Your task to perform on an android device: Open the Play Movies app and select the watchlist tab. Image 0: 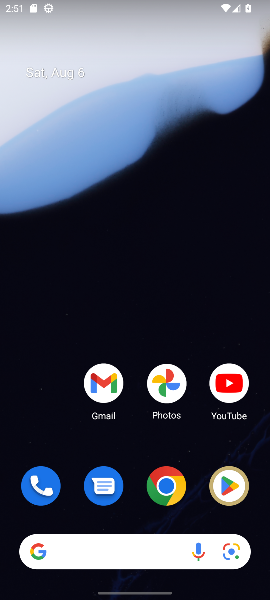
Step 0: press home button
Your task to perform on an android device: Open the Play Movies app and select the watchlist tab. Image 1: 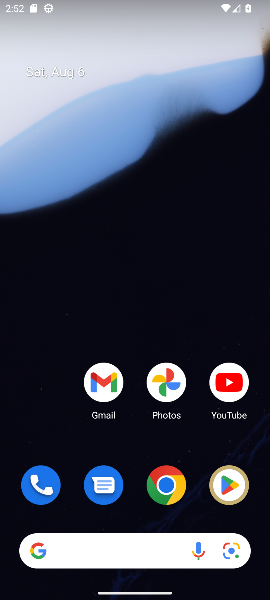
Step 1: drag from (134, 474) to (154, 26)
Your task to perform on an android device: Open the Play Movies app and select the watchlist tab. Image 2: 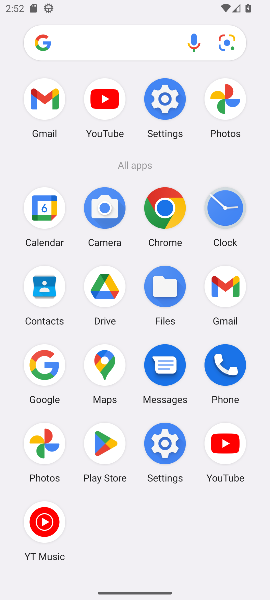
Step 2: click (99, 441)
Your task to perform on an android device: Open the Play Movies app and select the watchlist tab. Image 3: 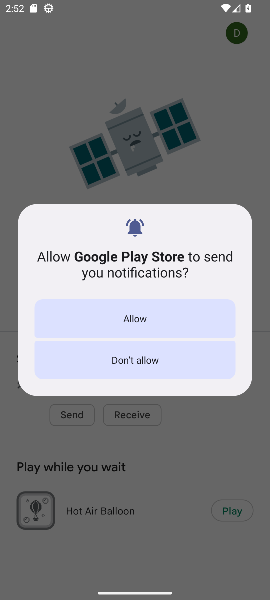
Step 3: click (126, 307)
Your task to perform on an android device: Open the Play Movies app and select the watchlist tab. Image 4: 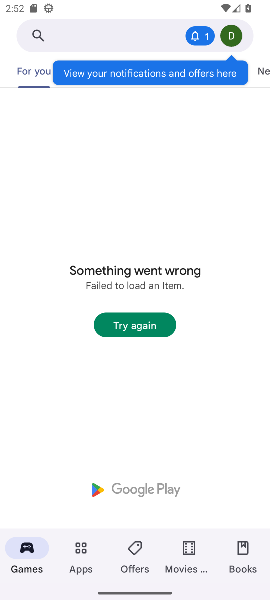
Step 4: click (133, 327)
Your task to perform on an android device: Open the Play Movies app and select the watchlist tab. Image 5: 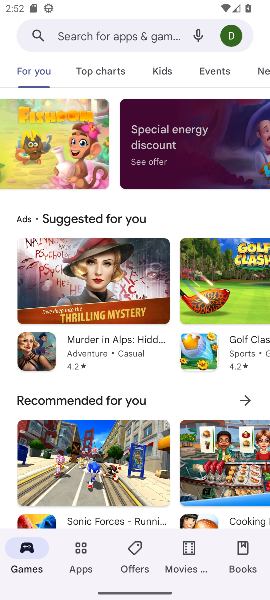
Step 5: click (84, 34)
Your task to perform on an android device: Open the Play Movies app and select the watchlist tab. Image 6: 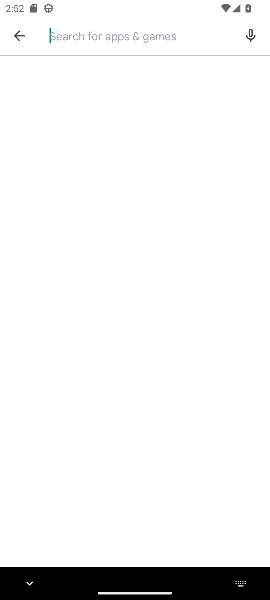
Step 6: type "play movies app"
Your task to perform on an android device: Open the Play Movies app and select the watchlist tab. Image 7: 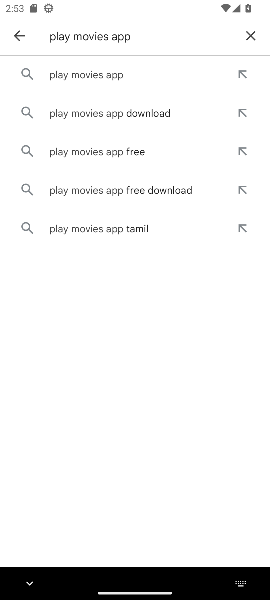
Step 7: click (131, 72)
Your task to perform on an android device: Open the Play Movies app and select the watchlist tab. Image 8: 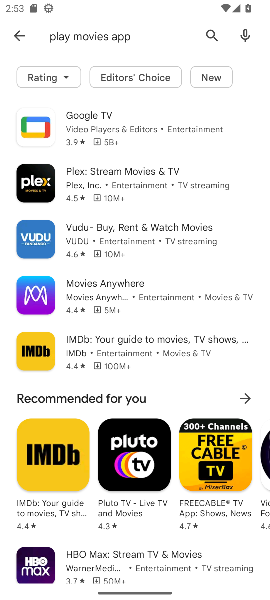
Step 8: task complete